Your task to perform on an android device: Go to Maps Image 0: 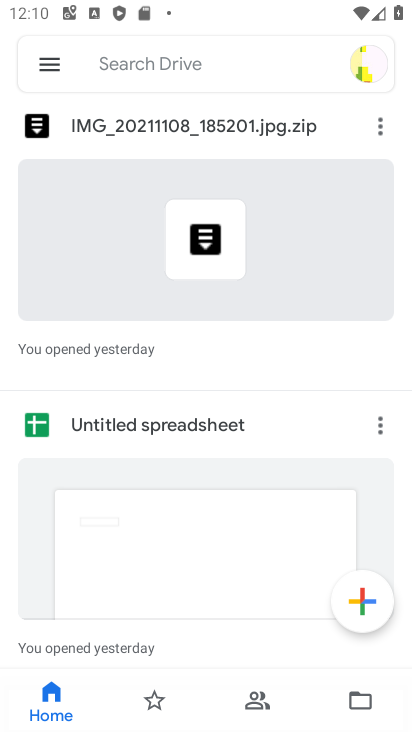
Step 0: press home button
Your task to perform on an android device: Go to Maps Image 1: 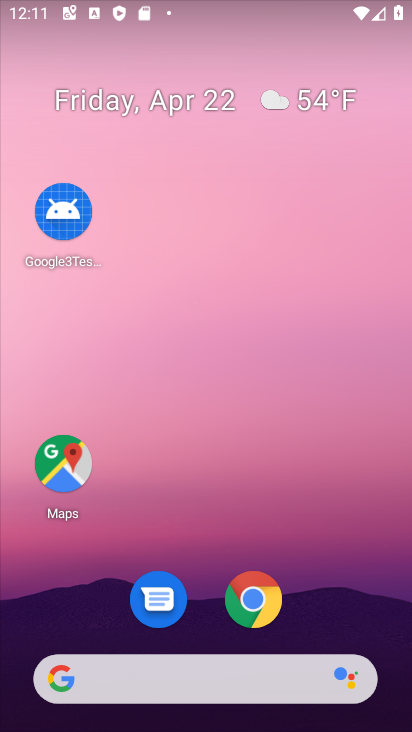
Step 1: click (58, 459)
Your task to perform on an android device: Go to Maps Image 2: 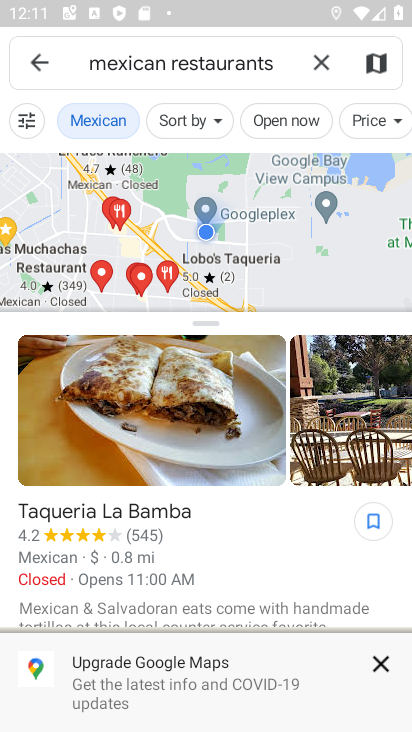
Step 2: task complete